Your task to perform on an android device: turn off smart reply in the gmail app Image 0: 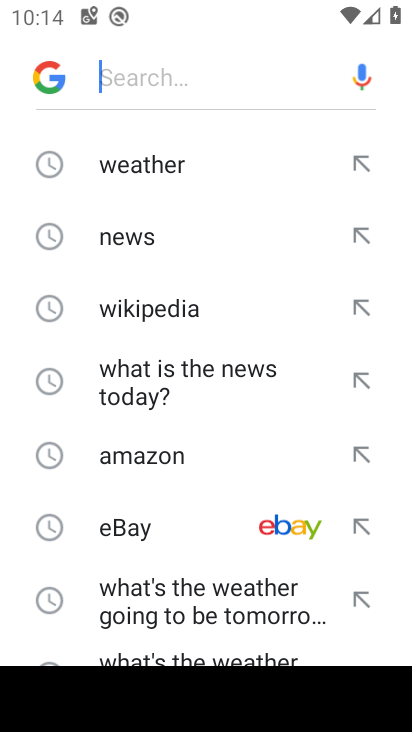
Step 0: press home button
Your task to perform on an android device: turn off smart reply in the gmail app Image 1: 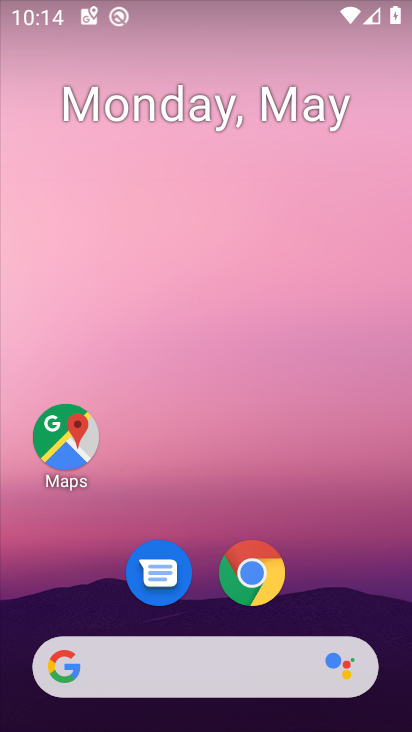
Step 1: drag from (217, 558) to (291, 47)
Your task to perform on an android device: turn off smart reply in the gmail app Image 2: 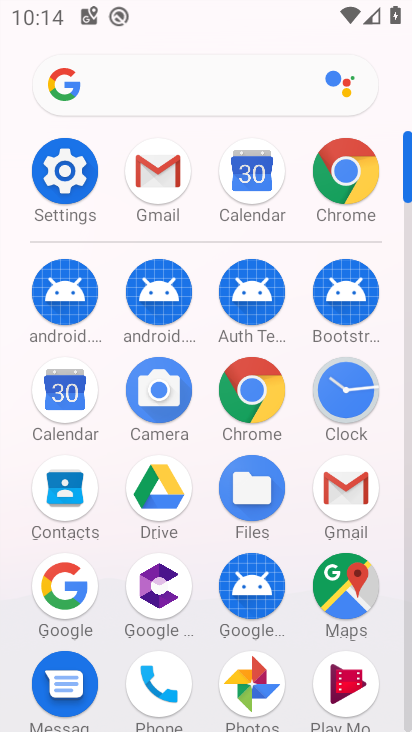
Step 2: click (150, 161)
Your task to perform on an android device: turn off smart reply in the gmail app Image 3: 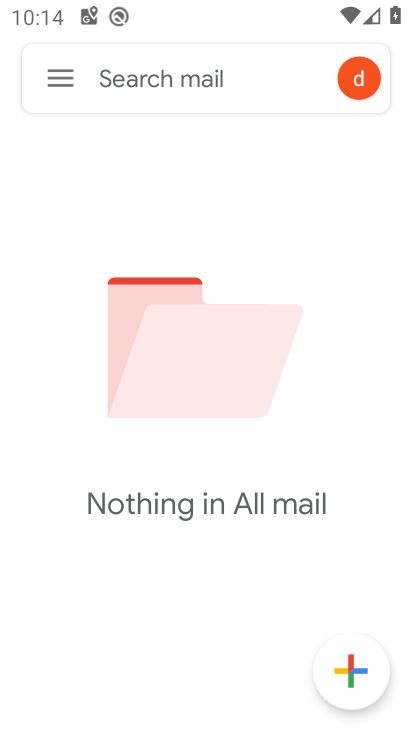
Step 3: click (55, 76)
Your task to perform on an android device: turn off smart reply in the gmail app Image 4: 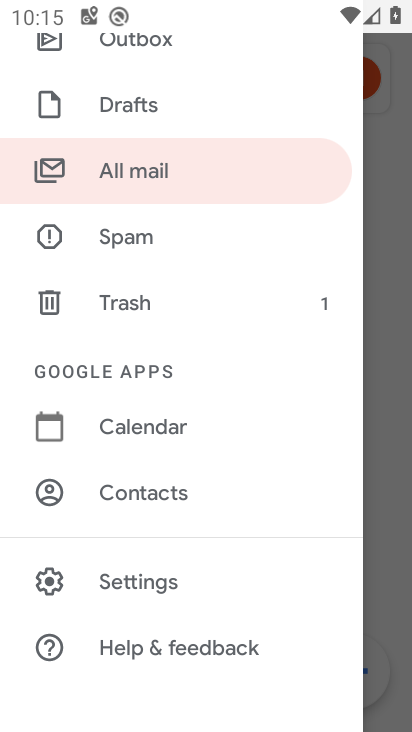
Step 4: click (160, 587)
Your task to perform on an android device: turn off smart reply in the gmail app Image 5: 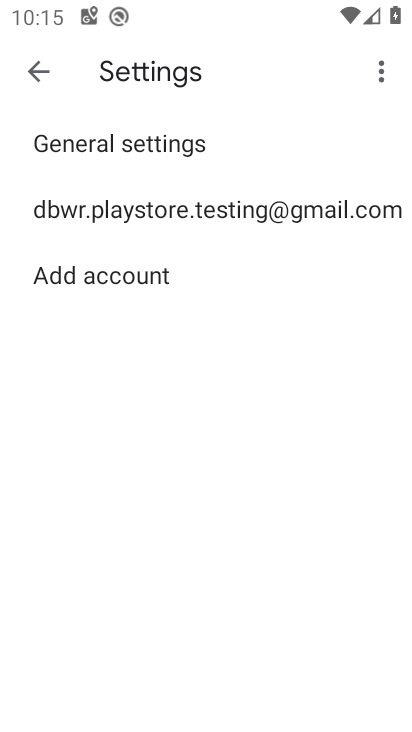
Step 5: click (177, 203)
Your task to perform on an android device: turn off smart reply in the gmail app Image 6: 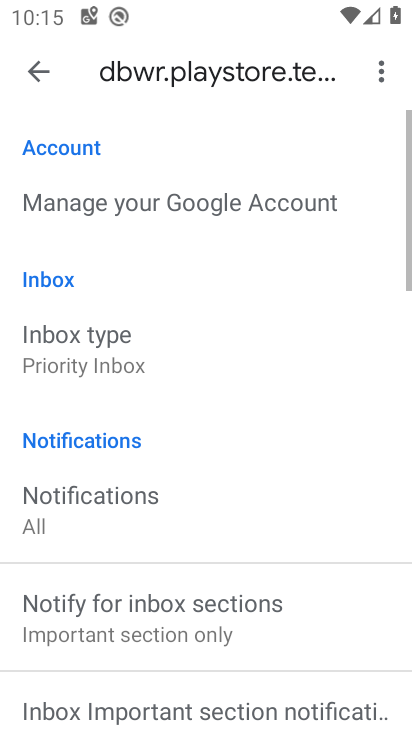
Step 6: drag from (173, 638) to (248, 86)
Your task to perform on an android device: turn off smart reply in the gmail app Image 7: 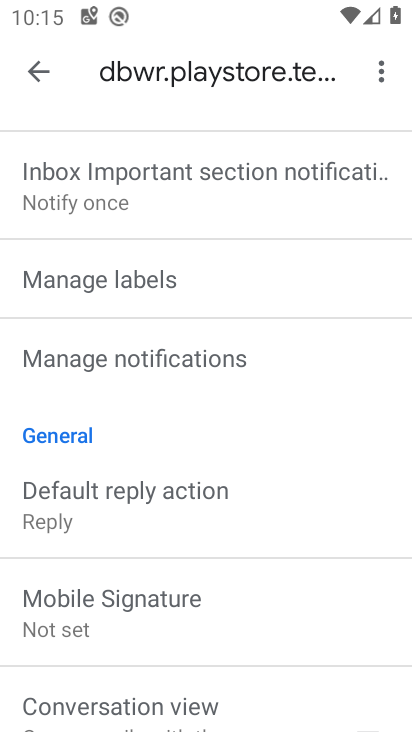
Step 7: drag from (123, 709) to (270, 91)
Your task to perform on an android device: turn off smart reply in the gmail app Image 8: 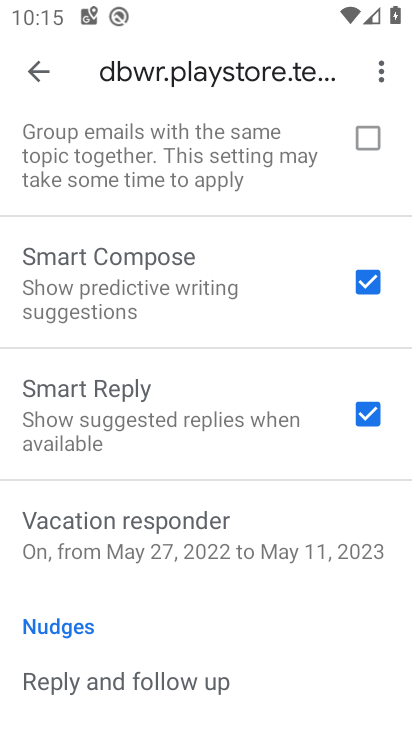
Step 8: click (362, 414)
Your task to perform on an android device: turn off smart reply in the gmail app Image 9: 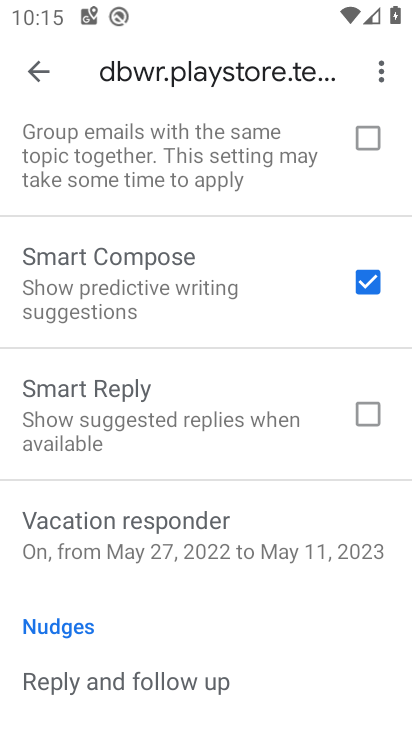
Step 9: task complete